Your task to perform on an android device: turn smart compose on in the gmail app Image 0: 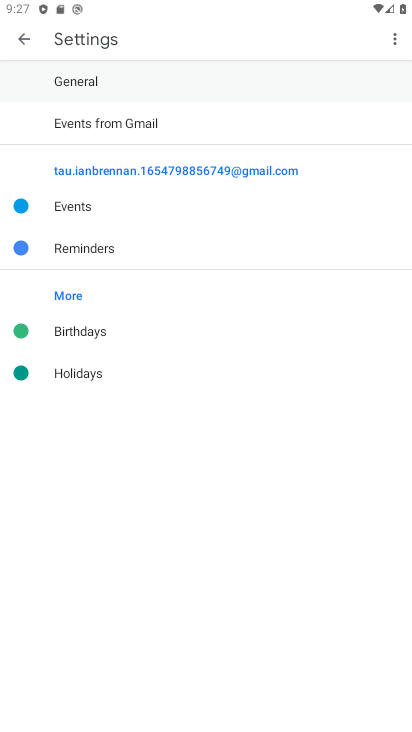
Step 0: task complete